Your task to perform on an android device: Check the news Image 0: 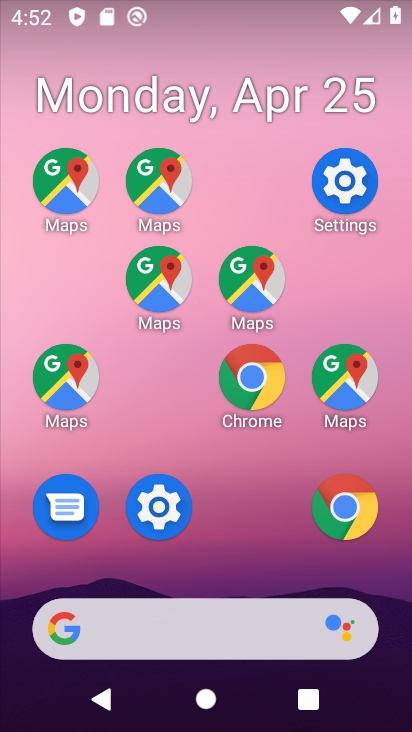
Step 0: press home button
Your task to perform on an android device: Check the news Image 1: 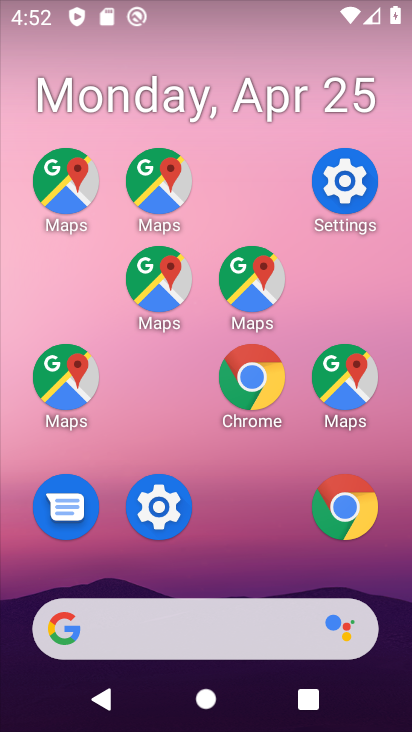
Step 1: drag from (68, 138) to (399, 580)
Your task to perform on an android device: Check the news Image 2: 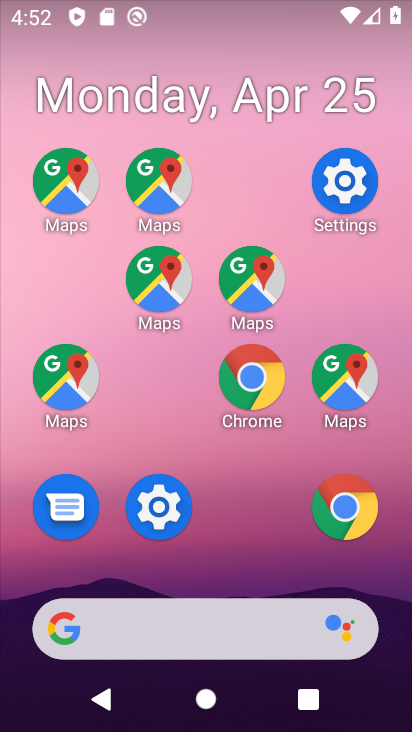
Step 2: drag from (7, 111) to (270, 464)
Your task to perform on an android device: Check the news Image 3: 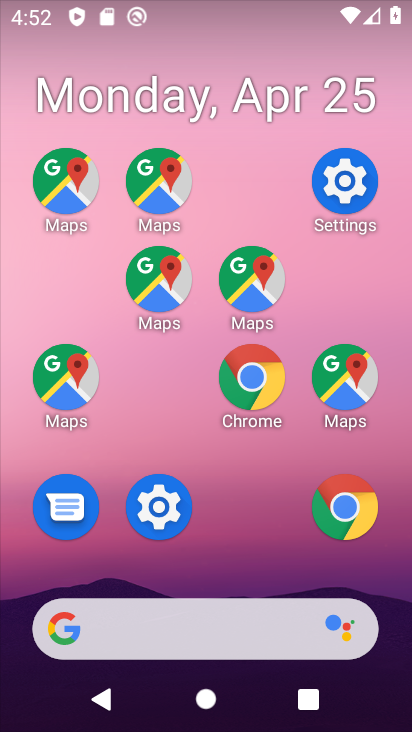
Step 3: drag from (29, 123) to (174, 289)
Your task to perform on an android device: Check the news Image 4: 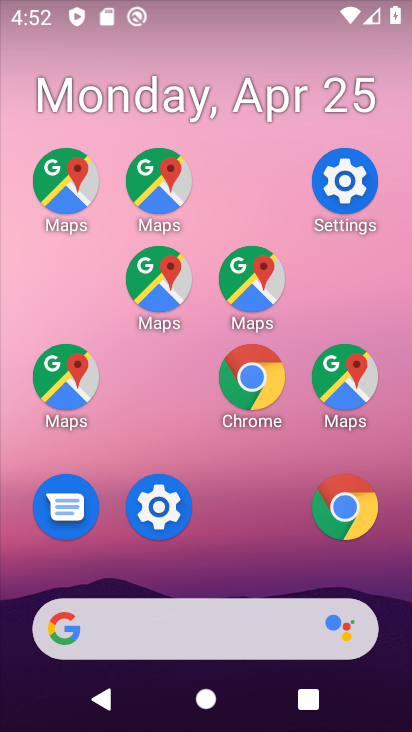
Step 4: drag from (28, 100) to (160, 291)
Your task to perform on an android device: Check the news Image 5: 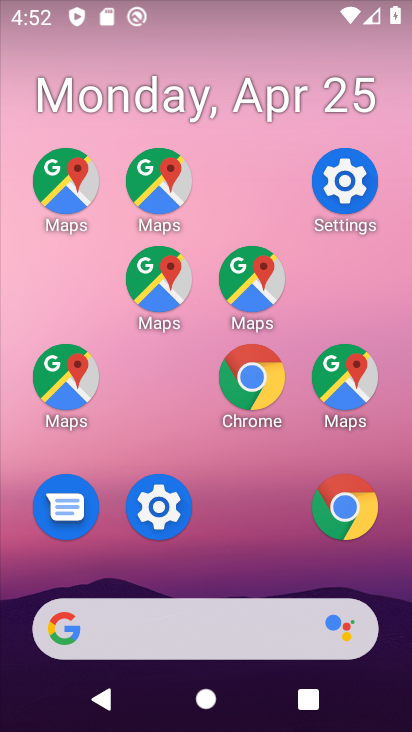
Step 5: drag from (106, 160) to (249, 434)
Your task to perform on an android device: Check the news Image 6: 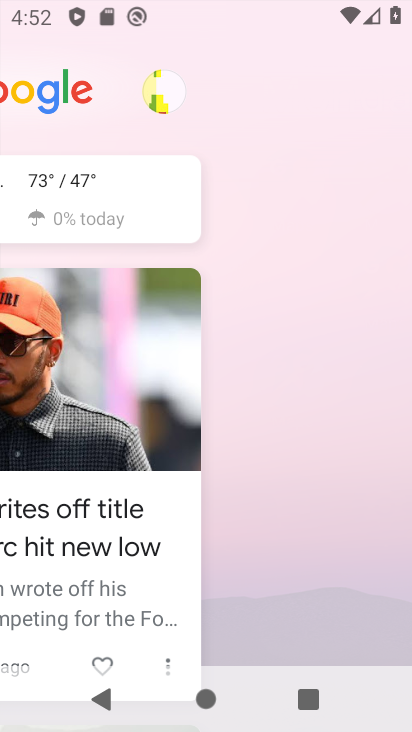
Step 6: drag from (65, 163) to (331, 585)
Your task to perform on an android device: Check the news Image 7: 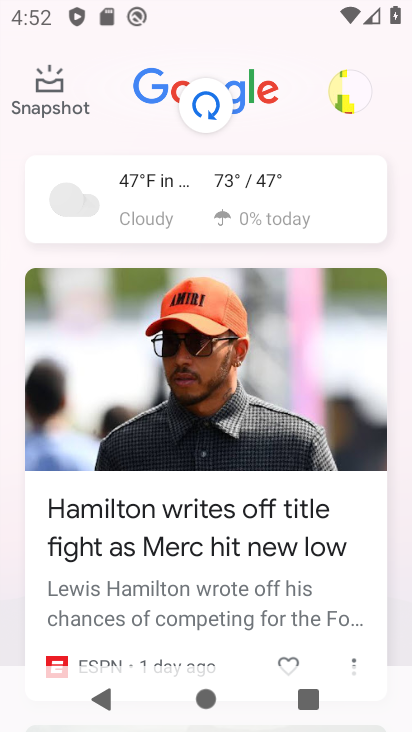
Step 7: drag from (243, 324) to (389, 644)
Your task to perform on an android device: Check the news Image 8: 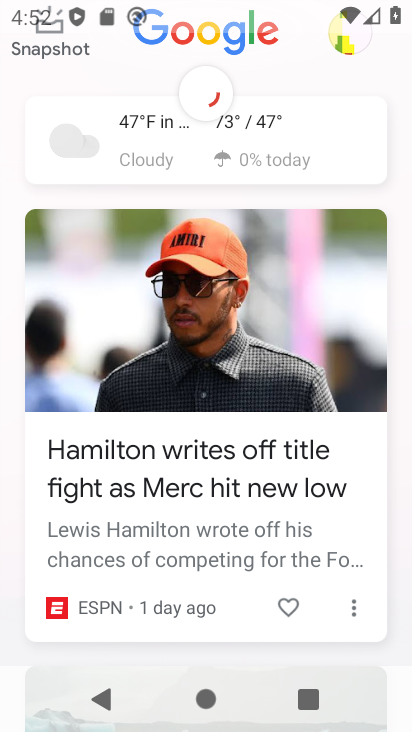
Step 8: click (183, 269)
Your task to perform on an android device: Check the news Image 9: 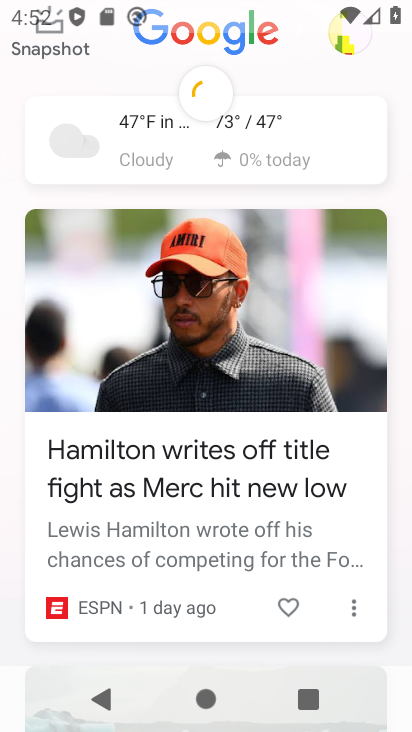
Step 9: task complete